Your task to perform on an android device: turn on sleep mode Image 0: 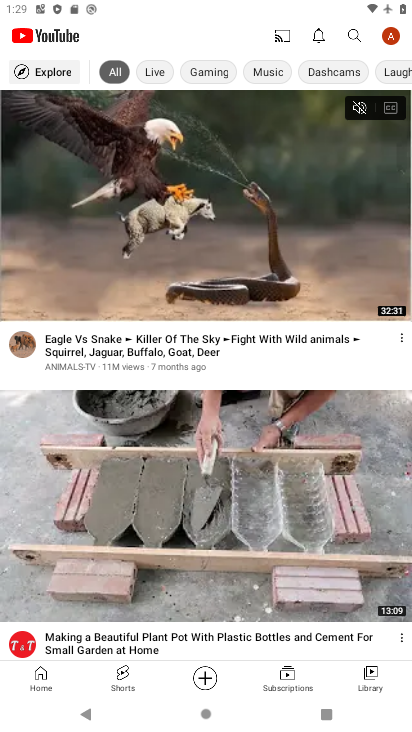
Step 0: press home button
Your task to perform on an android device: turn on sleep mode Image 1: 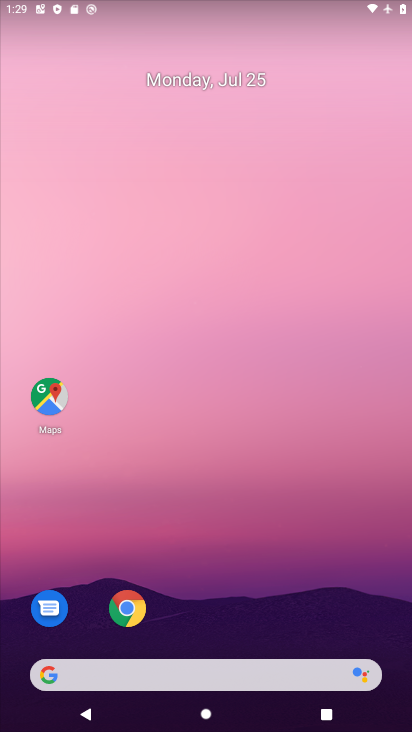
Step 1: drag from (241, 629) to (310, 100)
Your task to perform on an android device: turn on sleep mode Image 2: 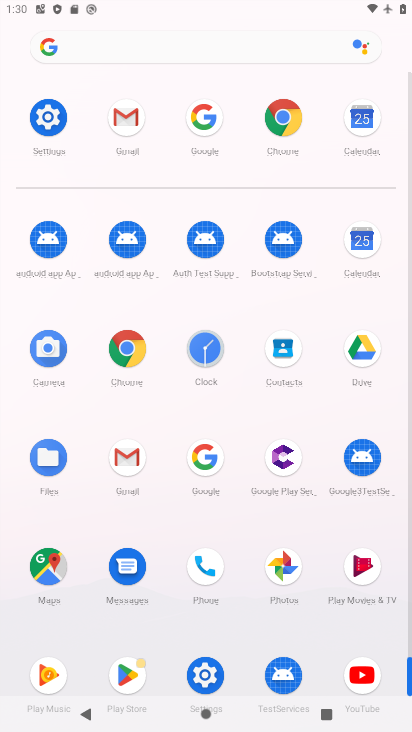
Step 2: click (51, 133)
Your task to perform on an android device: turn on sleep mode Image 3: 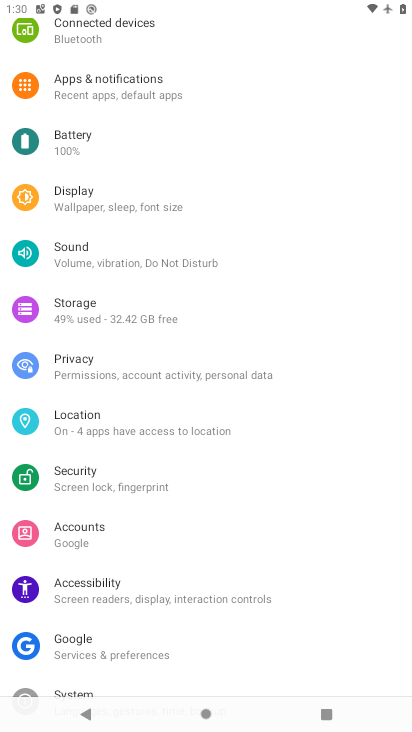
Step 3: click (118, 199)
Your task to perform on an android device: turn on sleep mode Image 4: 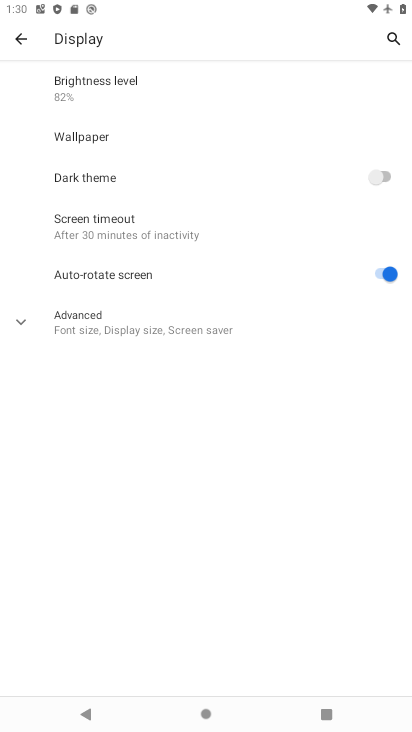
Step 4: click (99, 315)
Your task to perform on an android device: turn on sleep mode Image 5: 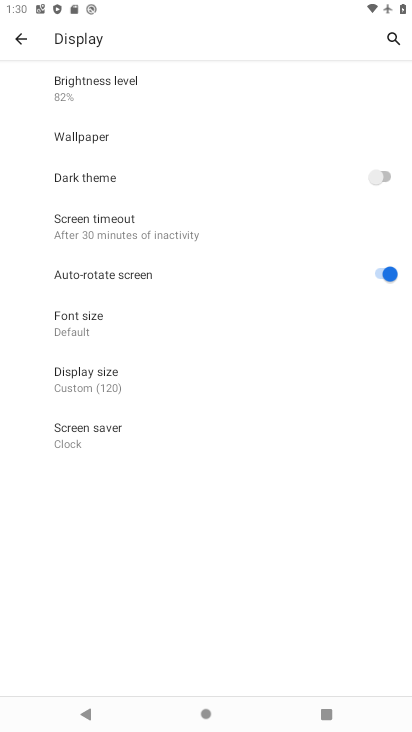
Step 5: task complete